Your task to perform on an android device: allow notifications from all sites in the chrome app Image 0: 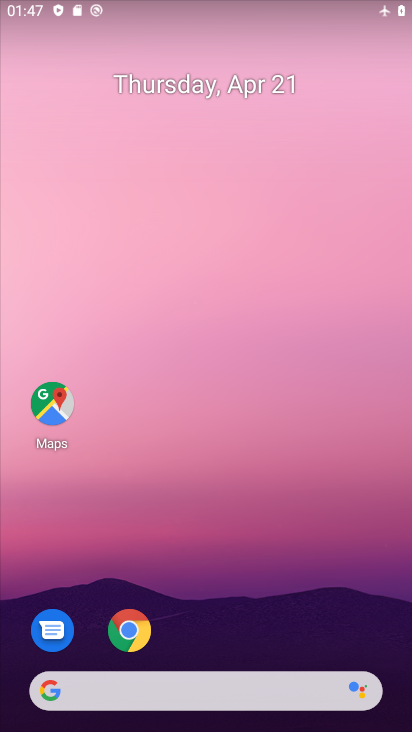
Step 0: click (134, 625)
Your task to perform on an android device: allow notifications from all sites in the chrome app Image 1: 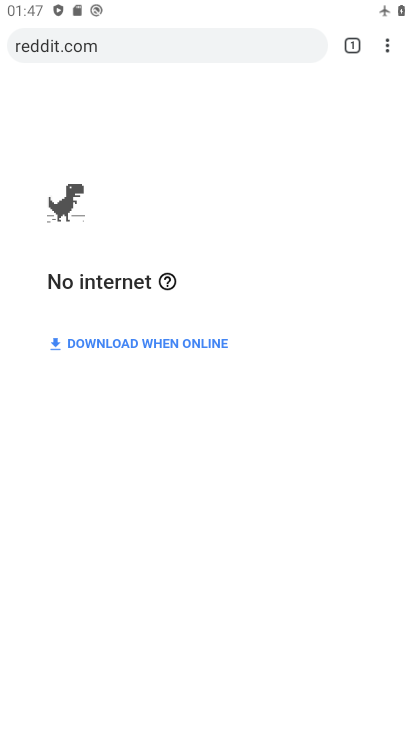
Step 1: click (385, 43)
Your task to perform on an android device: allow notifications from all sites in the chrome app Image 2: 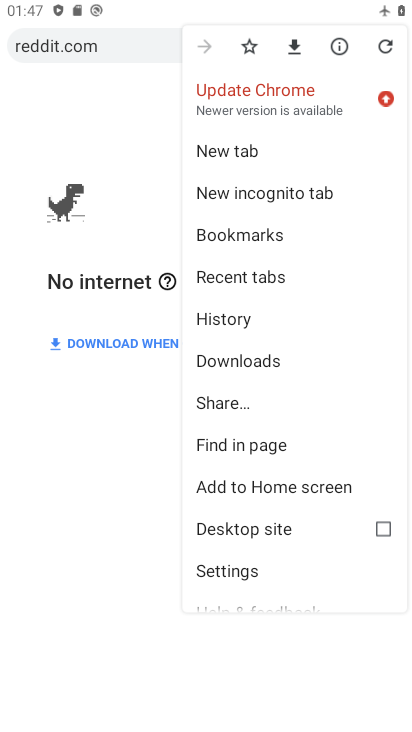
Step 2: click (258, 559)
Your task to perform on an android device: allow notifications from all sites in the chrome app Image 3: 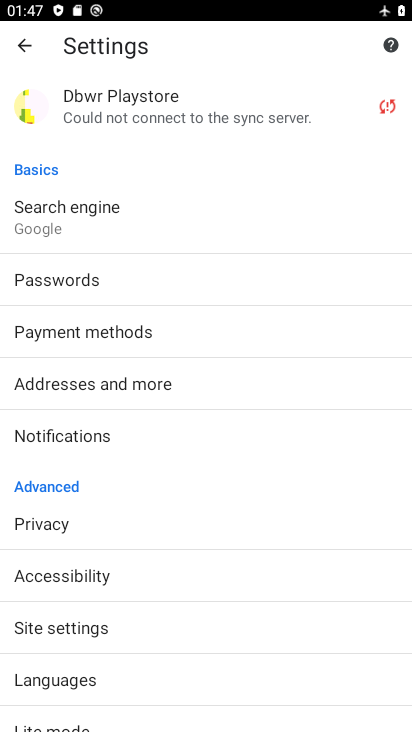
Step 3: drag from (244, 484) to (226, 324)
Your task to perform on an android device: allow notifications from all sites in the chrome app Image 4: 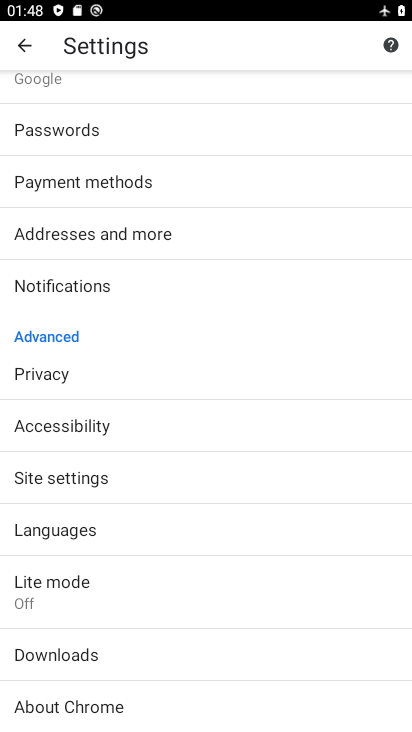
Step 4: click (152, 466)
Your task to perform on an android device: allow notifications from all sites in the chrome app Image 5: 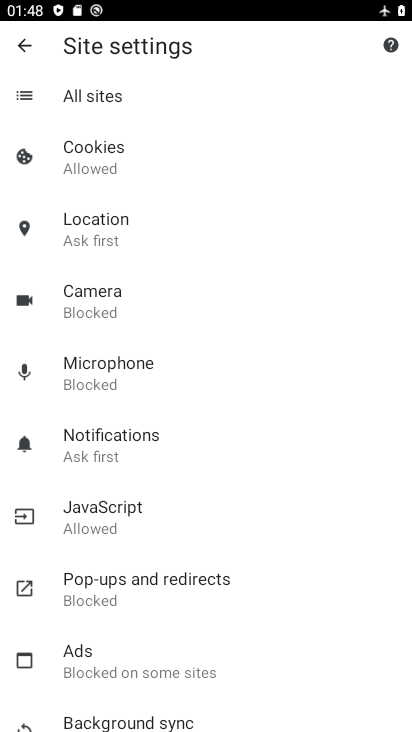
Step 5: task complete